Your task to perform on an android device: Do I have any events this weekend? Image 0: 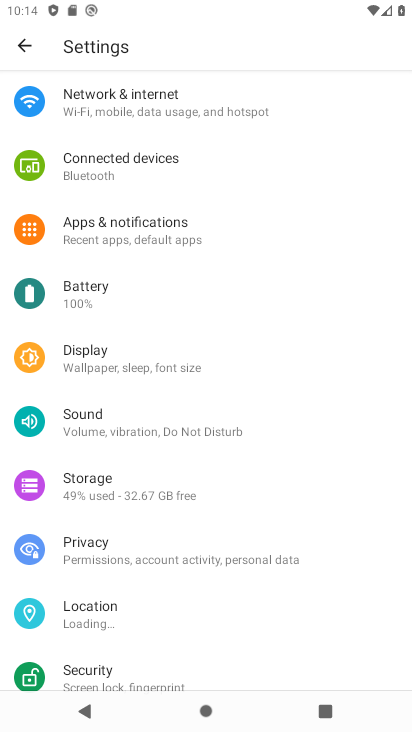
Step 0: press home button
Your task to perform on an android device: Do I have any events this weekend? Image 1: 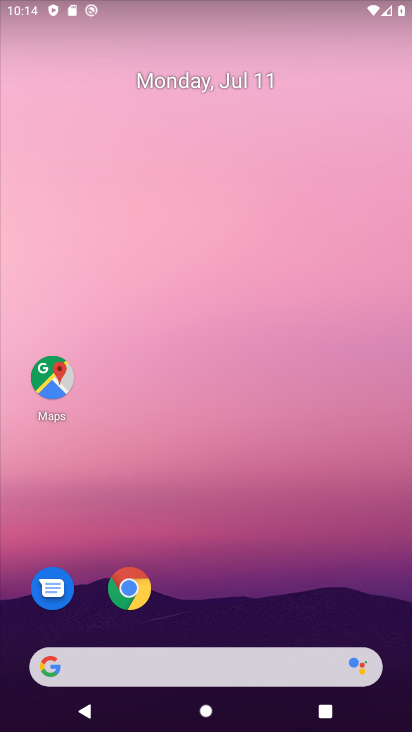
Step 1: drag from (243, 569) to (209, 146)
Your task to perform on an android device: Do I have any events this weekend? Image 2: 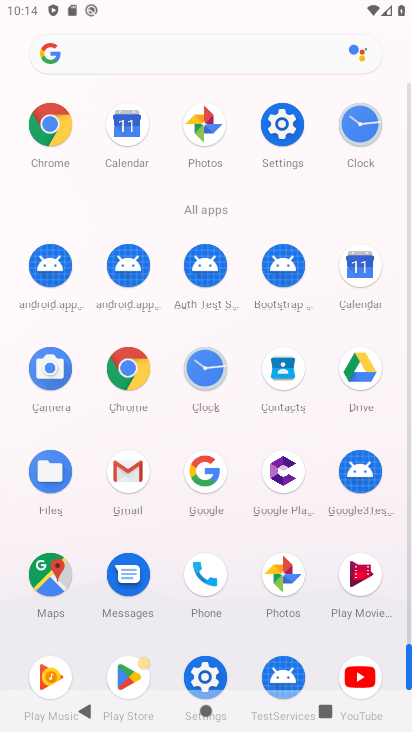
Step 2: click (122, 124)
Your task to perform on an android device: Do I have any events this weekend? Image 3: 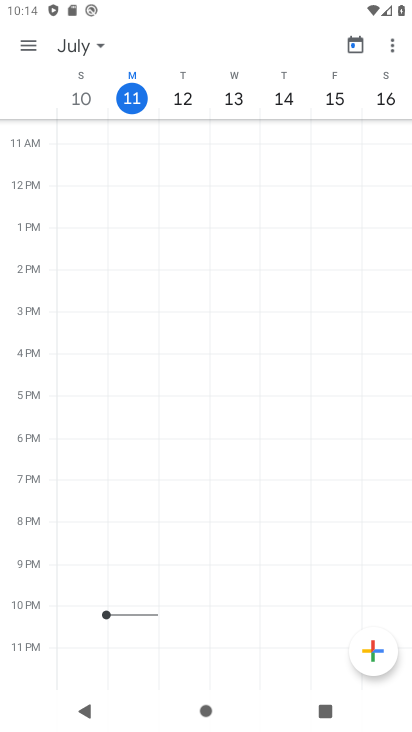
Step 3: task complete